Your task to perform on an android device: Open the calendar app, open the side menu, and click the "Day" option Image 0: 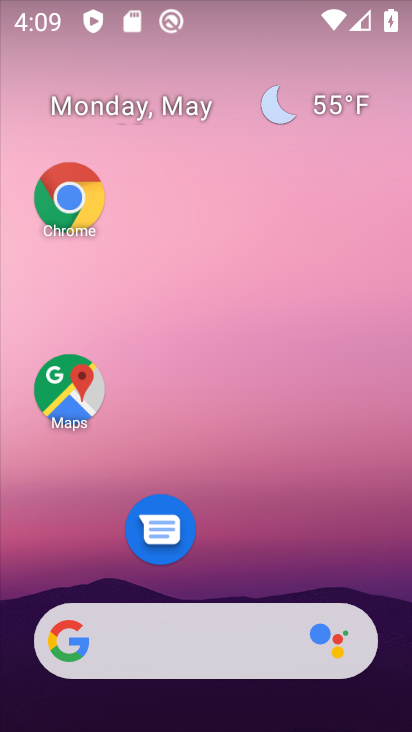
Step 0: drag from (224, 639) to (163, 82)
Your task to perform on an android device: Open the calendar app, open the side menu, and click the "Day" option Image 1: 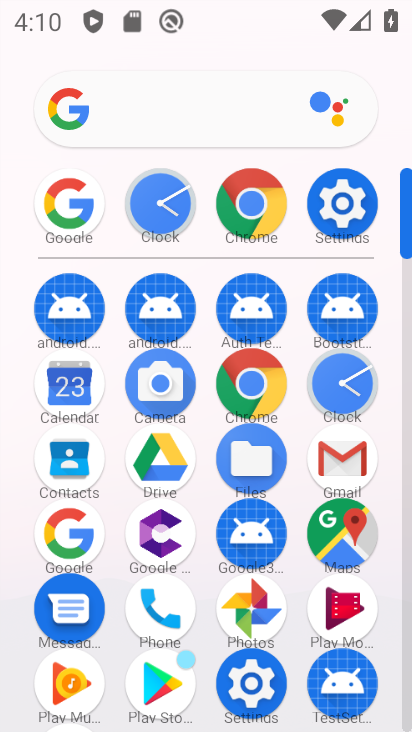
Step 1: click (69, 383)
Your task to perform on an android device: Open the calendar app, open the side menu, and click the "Day" option Image 2: 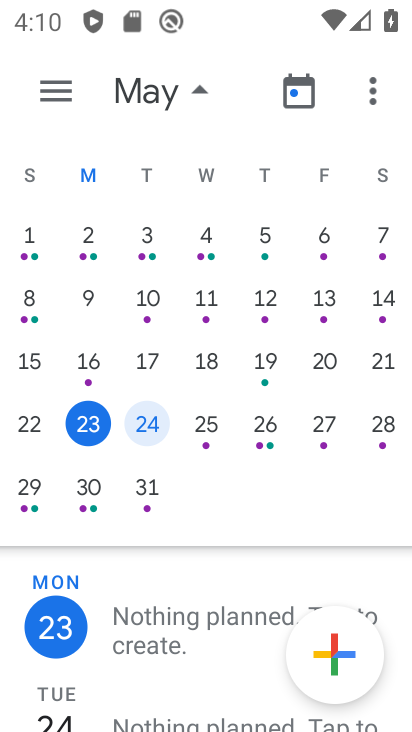
Step 2: click (61, 88)
Your task to perform on an android device: Open the calendar app, open the side menu, and click the "Day" option Image 3: 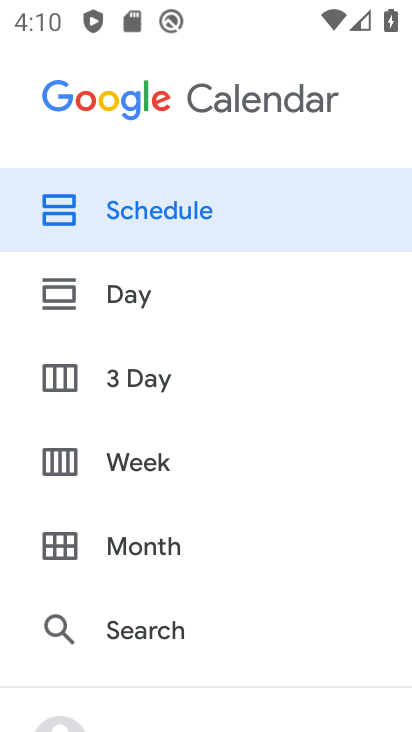
Step 3: click (191, 308)
Your task to perform on an android device: Open the calendar app, open the side menu, and click the "Day" option Image 4: 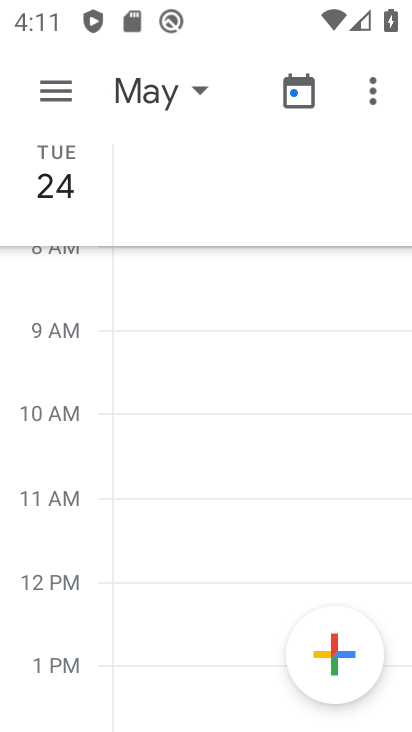
Step 4: task complete